Your task to perform on an android device: Go to CNN.com Image 0: 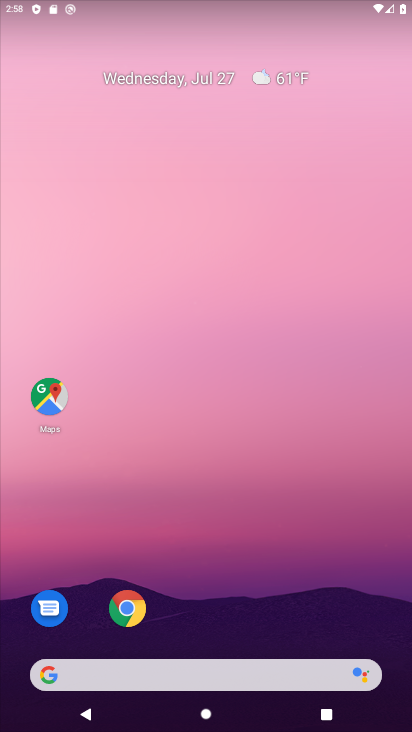
Step 0: click (127, 610)
Your task to perform on an android device: Go to CNN.com Image 1: 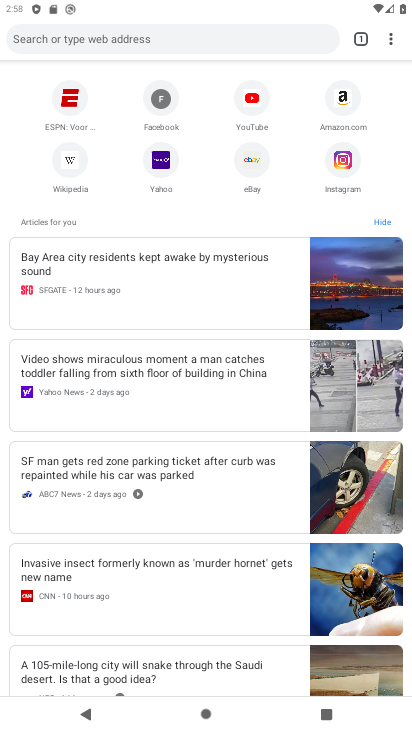
Step 1: click (182, 37)
Your task to perform on an android device: Go to CNN.com Image 2: 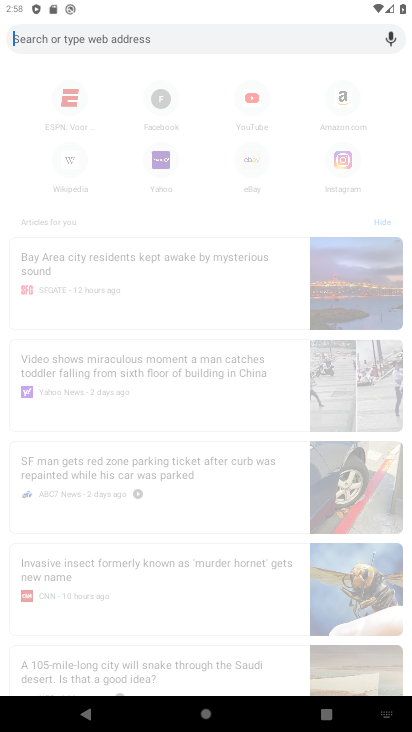
Step 2: type "CNN.com"
Your task to perform on an android device: Go to CNN.com Image 3: 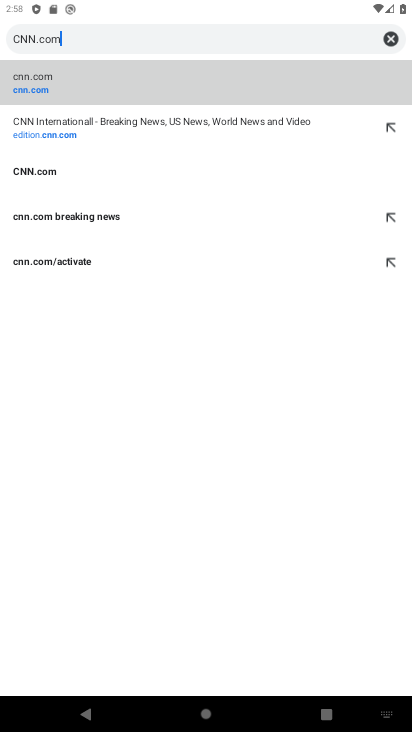
Step 3: click (338, 84)
Your task to perform on an android device: Go to CNN.com Image 4: 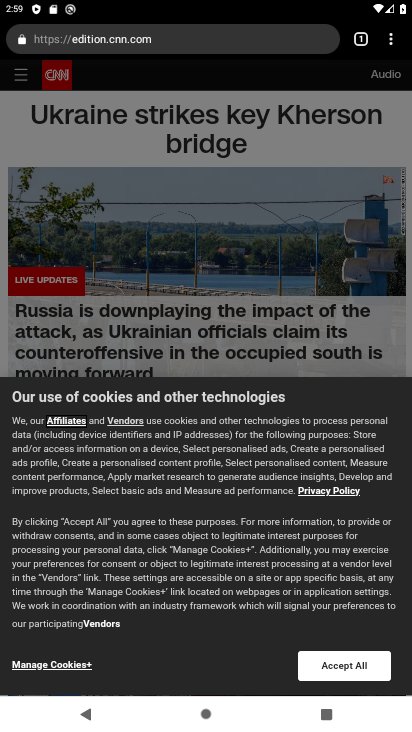
Step 4: task complete